Your task to perform on an android device: Go to wifi settings Image 0: 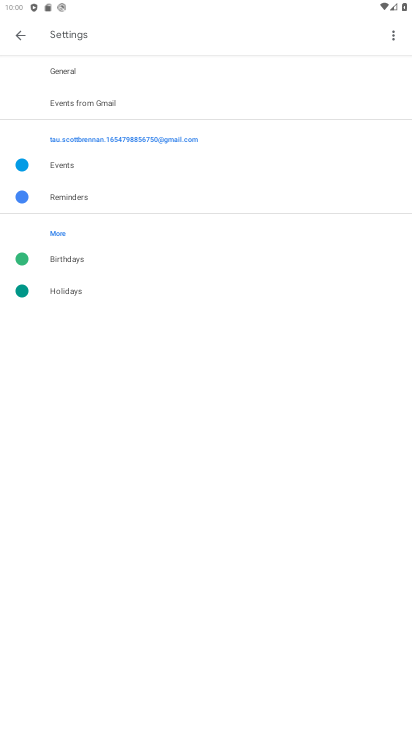
Step 0: press home button
Your task to perform on an android device: Go to wifi settings Image 1: 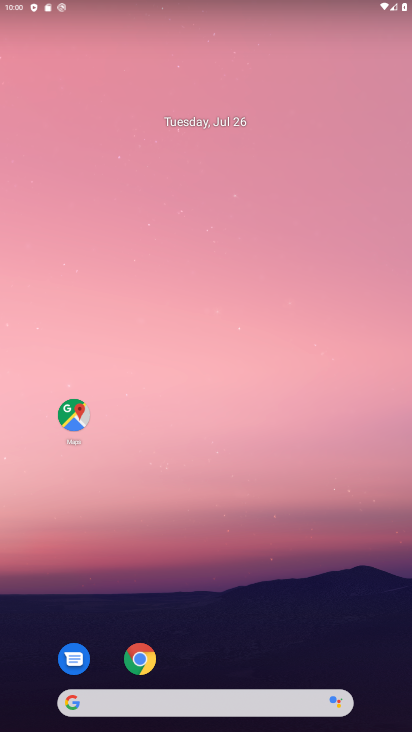
Step 1: drag from (332, 292) to (327, 12)
Your task to perform on an android device: Go to wifi settings Image 2: 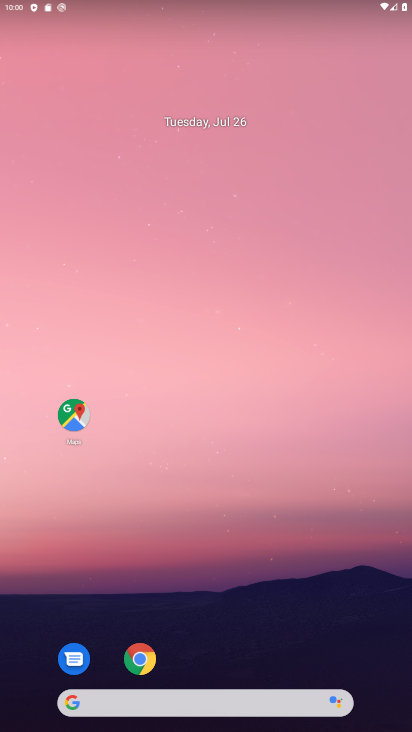
Step 2: drag from (391, 726) to (312, 13)
Your task to perform on an android device: Go to wifi settings Image 3: 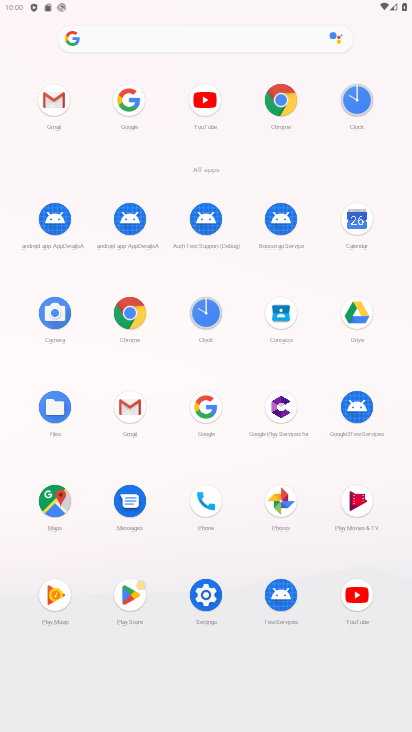
Step 3: click (212, 586)
Your task to perform on an android device: Go to wifi settings Image 4: 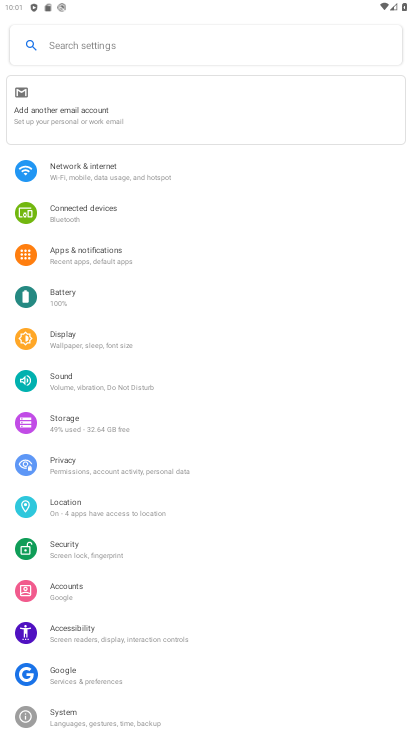
Step 4: click (85, 162)
Your task to perform on an android device: Go to wifi settings Image 5: 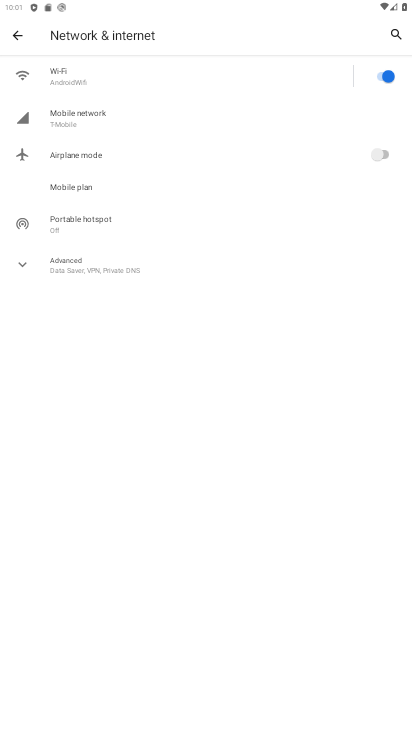
Step 5: click (193, 81)
Your task to perform on an android device: Go to wifi settings Image 6: 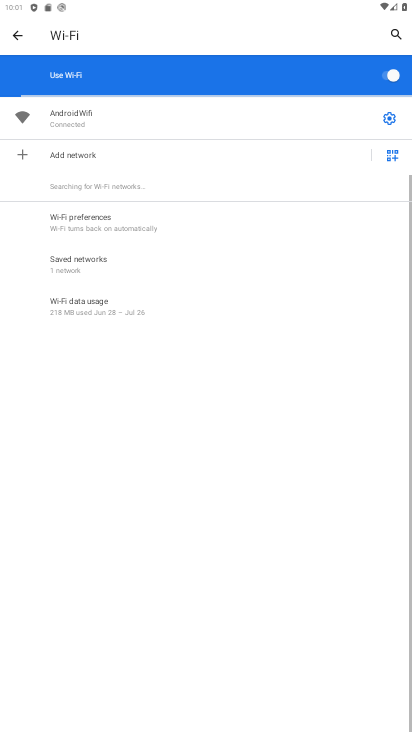
Step 6: click (387, 118)
Your task to perform on an android device: Go to wifi settings Image 7: 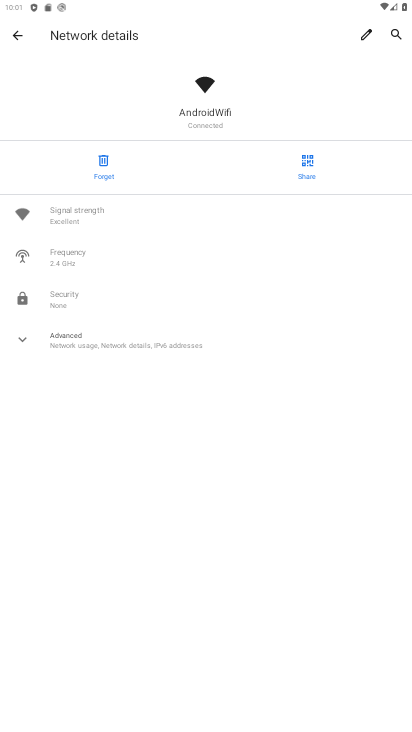
Step 7: task complete